Your task to perform on an android device: check data usage Image 0: 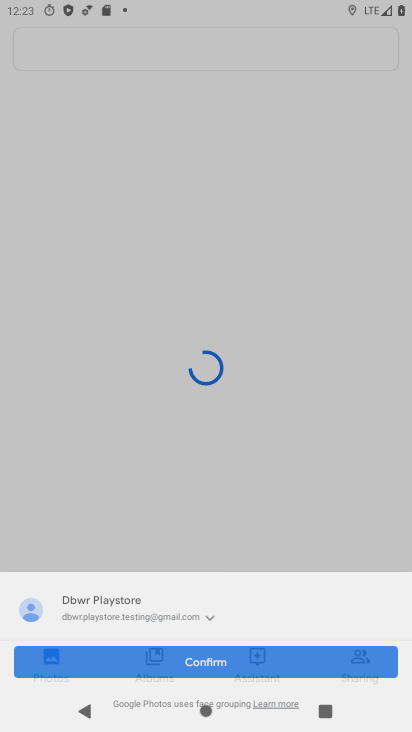
Step 0: press home button
Your task to perform on an android device: check data usage Image 1: 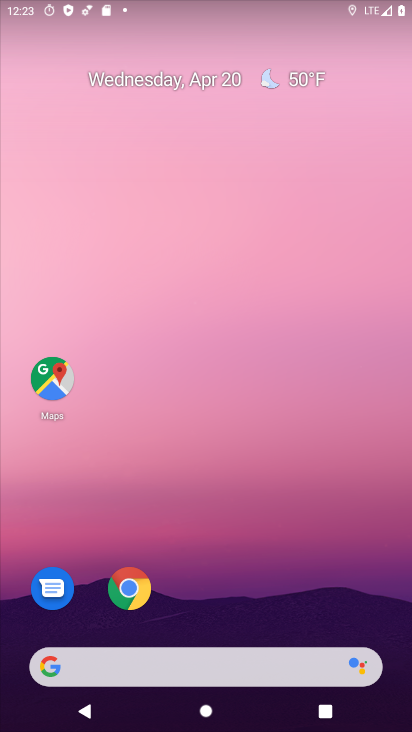
Step 1: drag from (197, 628) to (183, 36)
Your task to perform on an android device: check data usage Image 2: 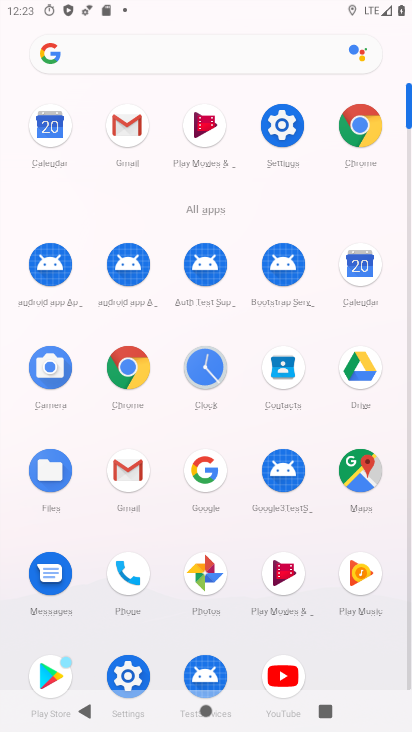
Step 2: click (284, 135)
Your task to perform on an android device: check data usage Image 3: 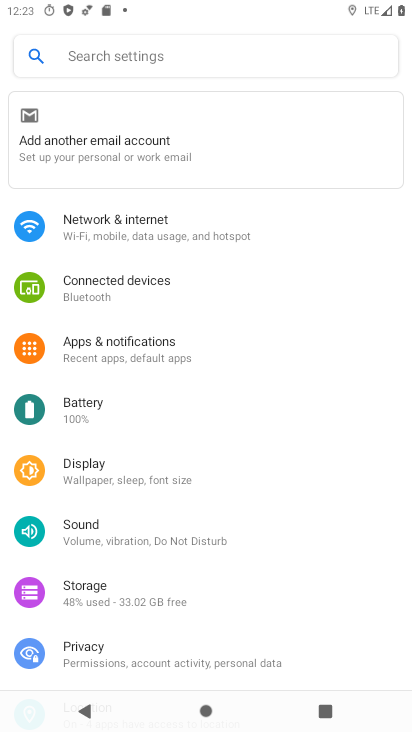
Step 3: click (107, 232)
Your task to perform on an android device: check data usage Image 4: 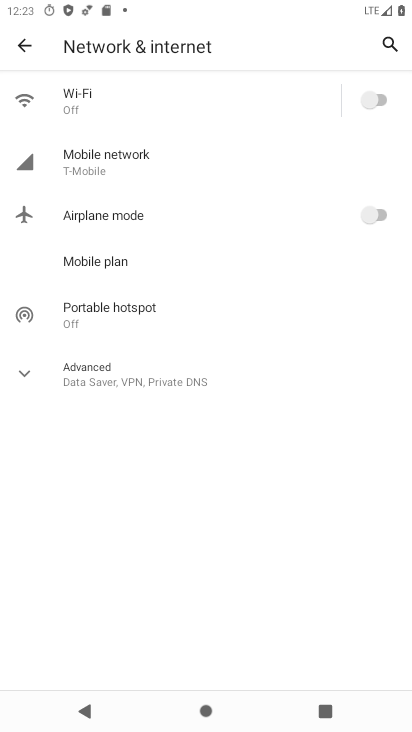
Step 4: click (82, 155)
Your task to perform on an android device: check data usage Image 5: 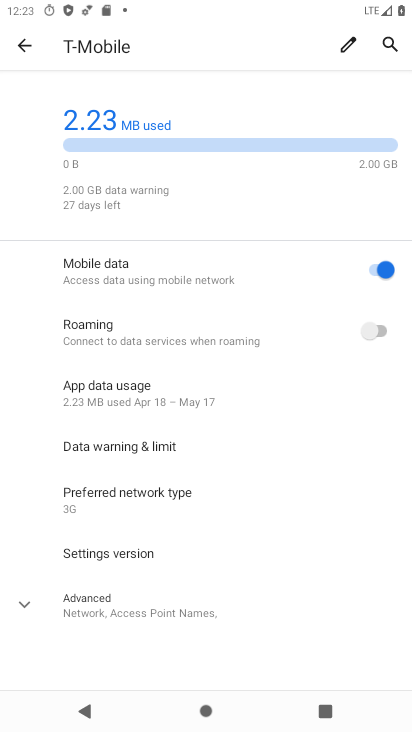
Step 5: task complete